Your task to perform on an android device: toggle priority inbox in the gmail app Image 0: 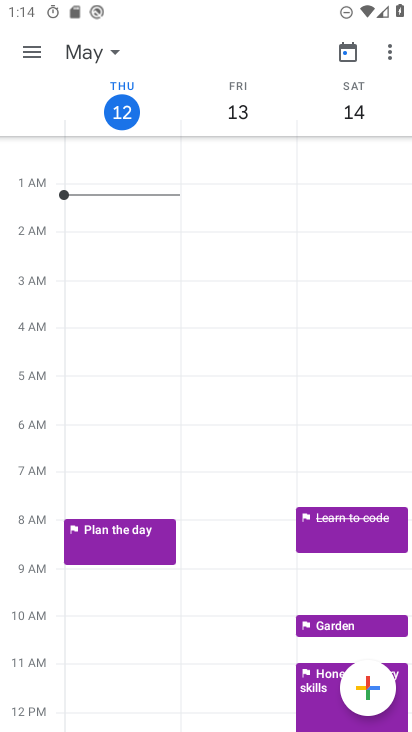
Step 0: press home button
Your task to perform on an android device: toggle priority inbox in the gmail app Image 1: 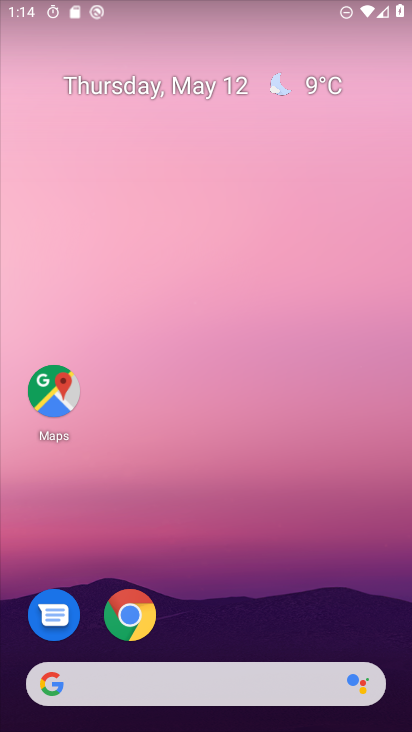
Step 1: drag from (218, 648) to (196, 129)
Your task to perform on an android device: toggle priority inbox in the gmail app Image 2: 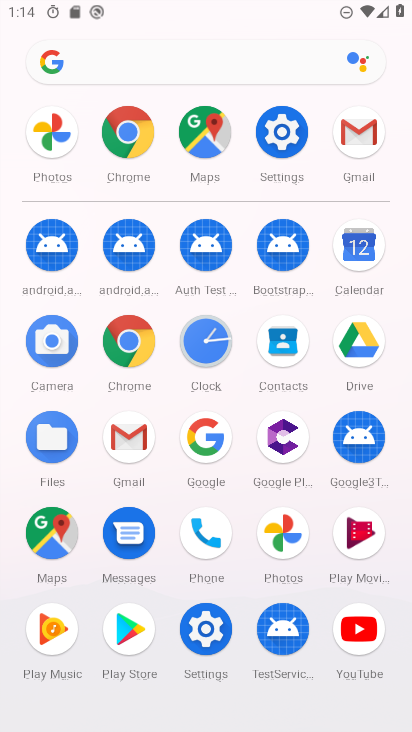
Step 2: click (359, 126)
Your task to perform on an android device: toggle priority inbox in the gmail app Image 3: 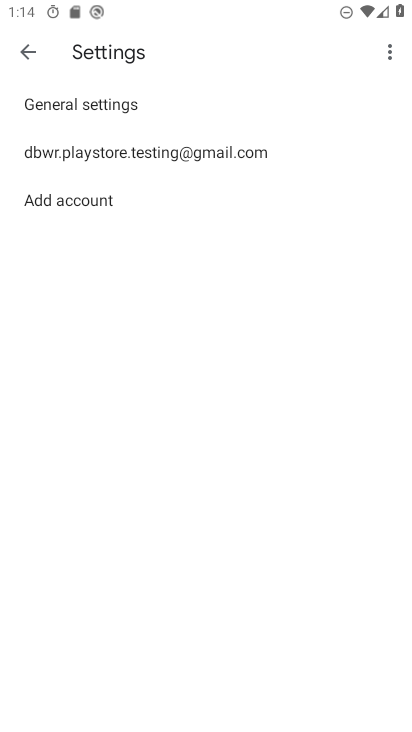
Step 3: click (166, 150)
Your task to perform on an android device: toggle priority inbox in the gmail app Image 4: 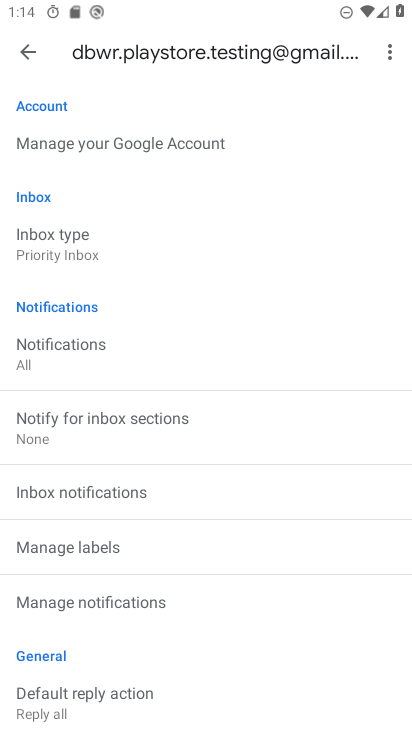
Step 4: click (64, 253)
Your task to perform on an android device: toggle priority inbox in the gmail app Image 5: 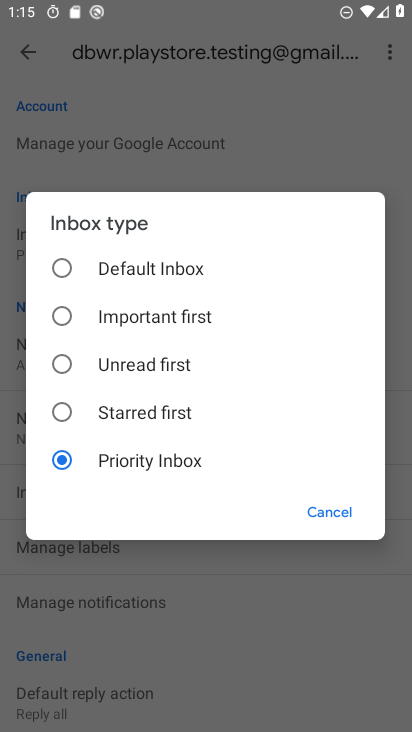
Step 5: click (168, 405)
Your task to perform on an android device: toggle priority inbox in the gmail app Image 6: 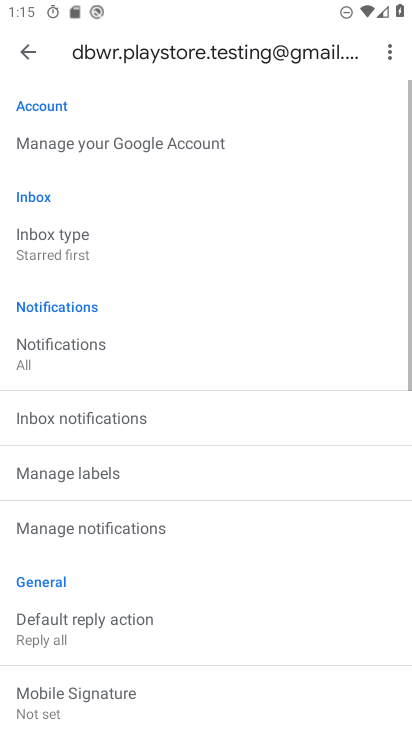
Step 6: task complete